Your task to perform on an android device: make emails show in primary in the gmail app Image 0: 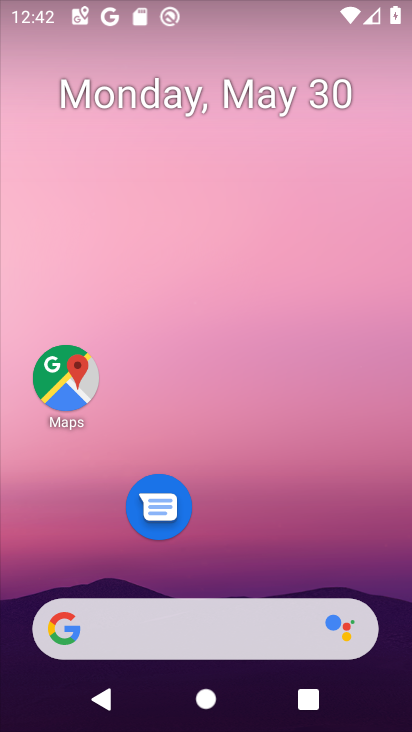
Step 0: drag from (252, 563) to (304, 90)
Your task to perform on an android device: make emails show in primary in the gmail app Image 1: 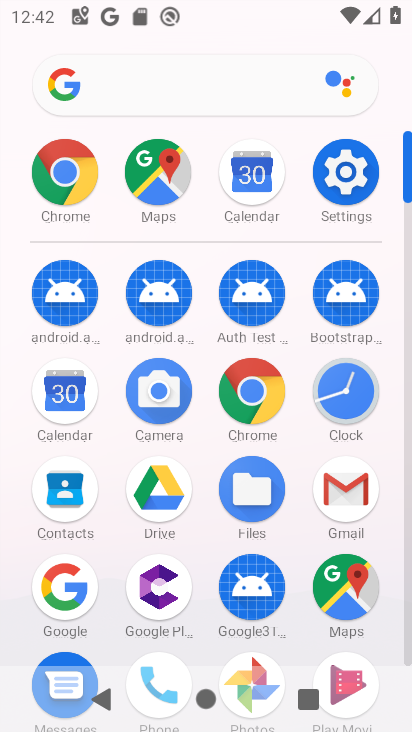
Step 1: click (338, 495)
Your task to perform on an android device: make emails show in primary in the gmail app Image 2: 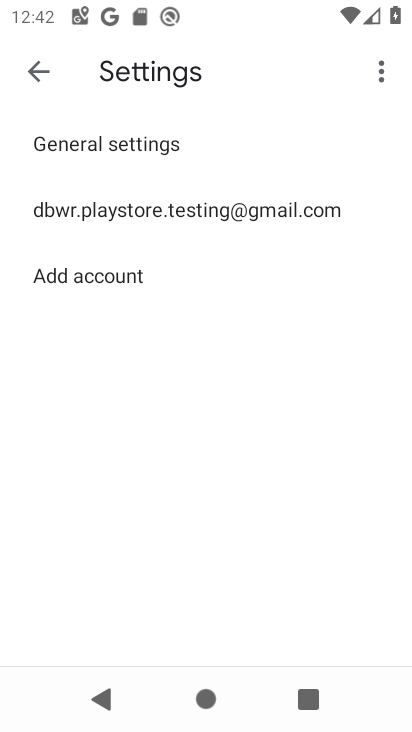
Step 2: click (29, 68)
Your task to perform on an android device: make emails show in primary in the gmail app Image 3: 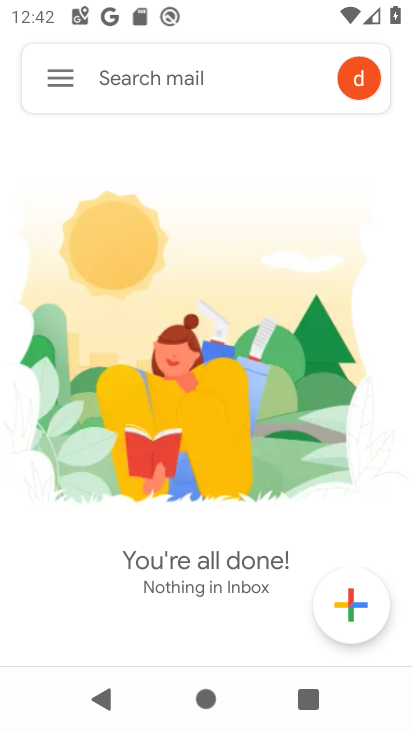
Step 3: task complete